Your task to perform on an android device: Do I have any events today? Image 0: 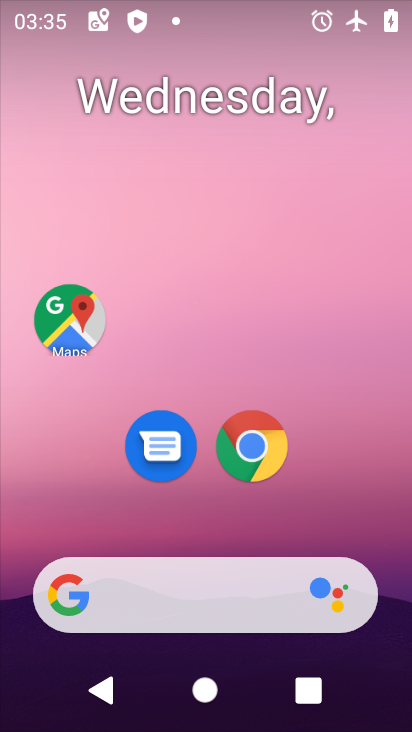
Step 0: drag from (225, 532) to (210, 208)
Your task to perform on an android device: Do I have any events today? Image 1: 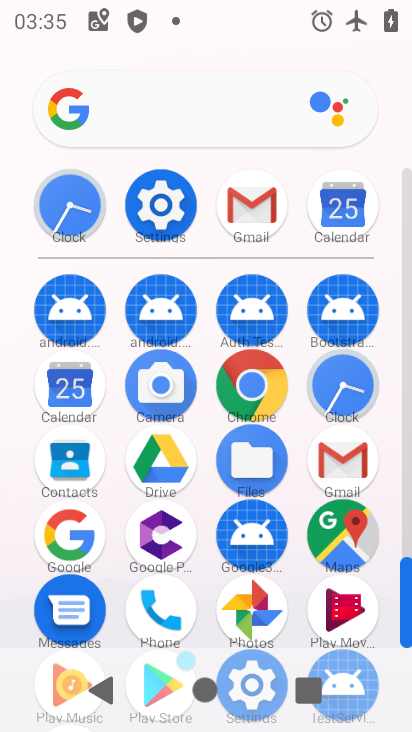
Step 1: click (326, 223)
Your task to perform on an android device: Do I have any events today? Image 2: 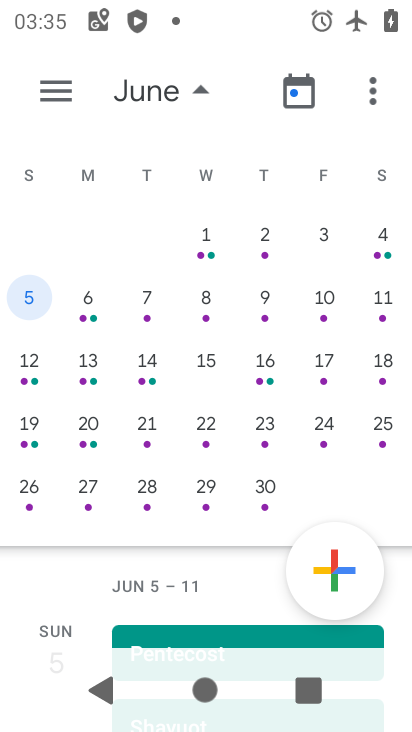
Step 2: drag from (90, 318) to (369, 328)
Your task to perform on an android device: Do I have any events today? Image 3: 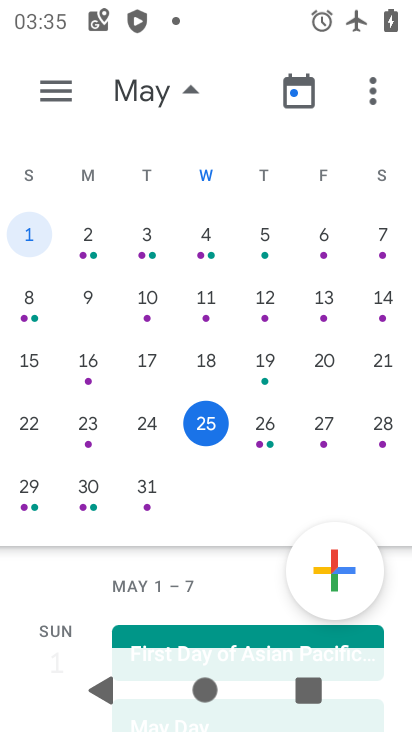
Step 3: click (201, 435)
Your task to perform on an android device: Do I have any events today? Image 4: 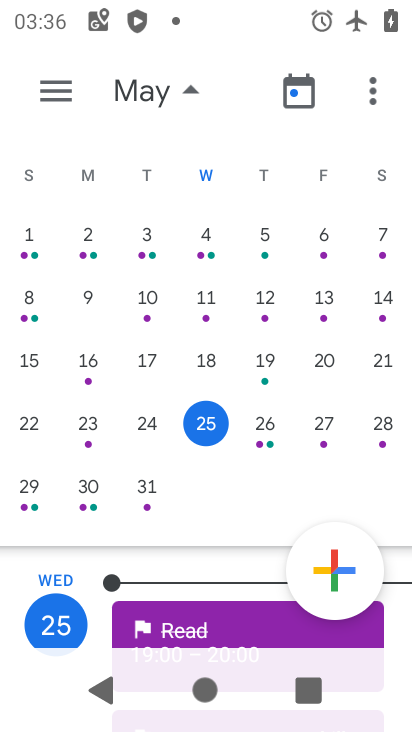
Step 4: task complete